Your task to perform on an android device: Search for Mexican restaurants on Maps Image 0: 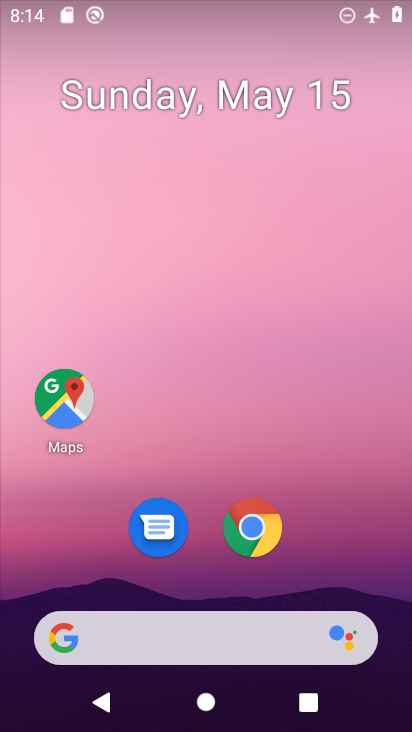
Step 0: click (44, 418)
Your task to perform on an android device: Search for Mexican restaurants on Maps Image 1: 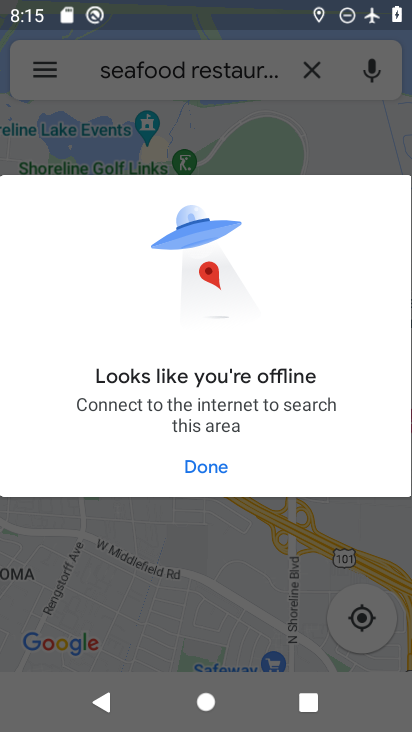
Step 1: task complete